Your task to perform on an android device: Go to Yahoo.com Image 0: 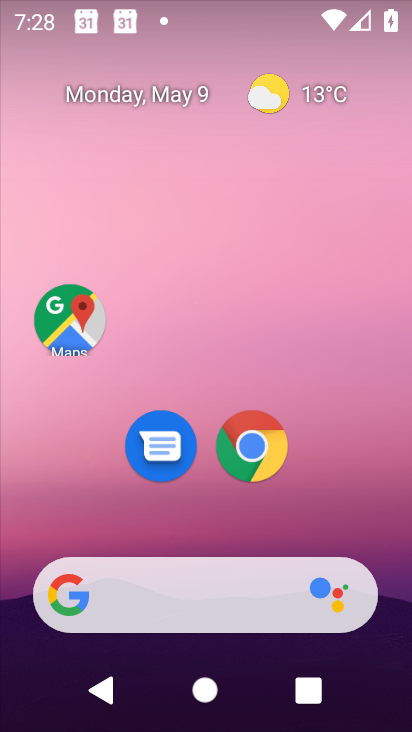
Step 0: click (232, 430)
Your task to perform on an android device: Go to Yahoo.com Image 1: 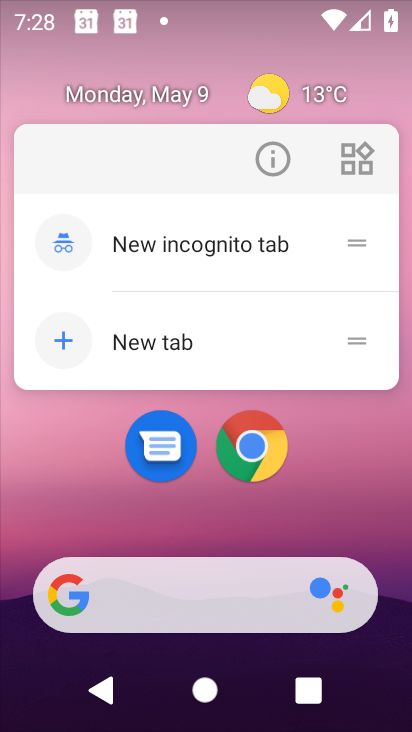
Step 1: click (266, 443)
Your task to perform on an android device: Go to Yahoo.com Image 2: 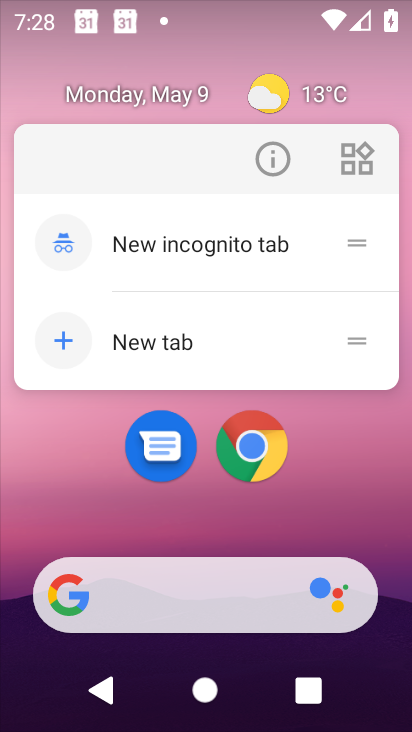
Step 2: click (265, 448)
Your task to perform on an android device: Go to Yahoo.com Image 3: 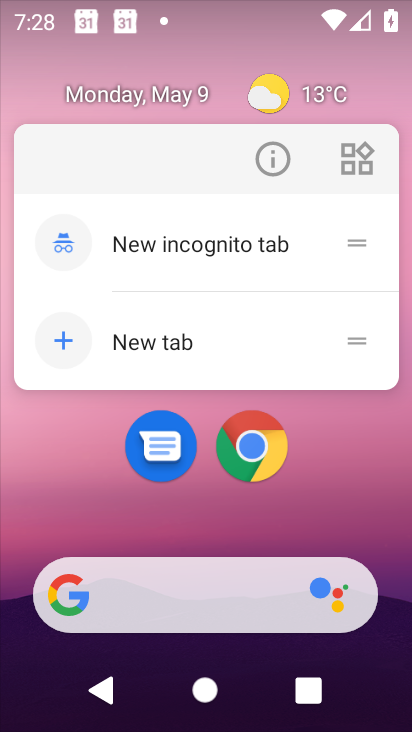
Step 3: click (257, 460)
Your task to perform on an android device: Go to Yahoo.com Image 4: 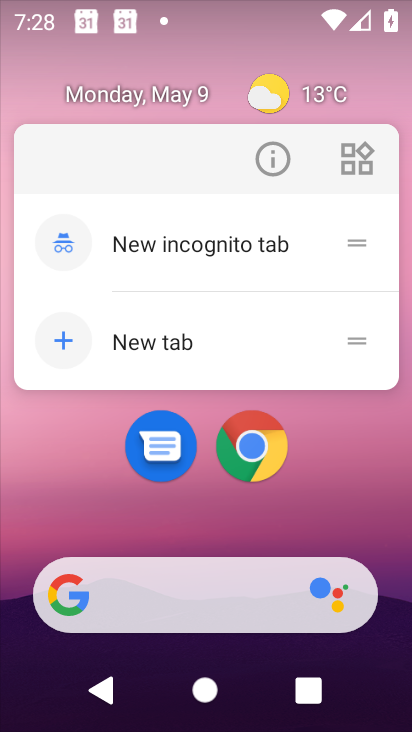
Step 4: click (256, 459)
Your task to perform on an android device: Go to Yahoo.com Image 5: 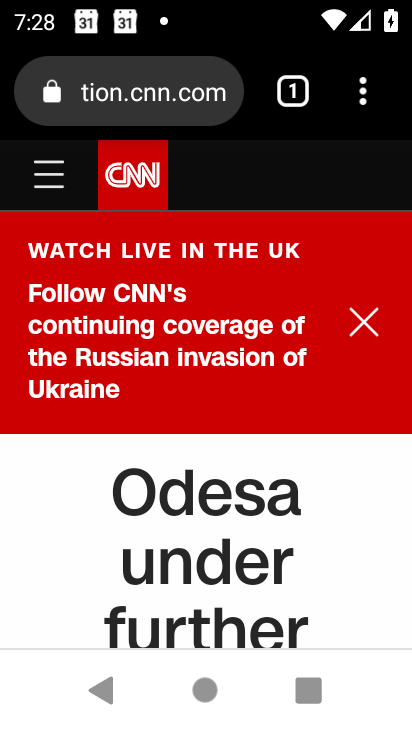
Step 5: click (140, 103)
Your task to perform on an android device: Go to Yahoo.com Image 6: 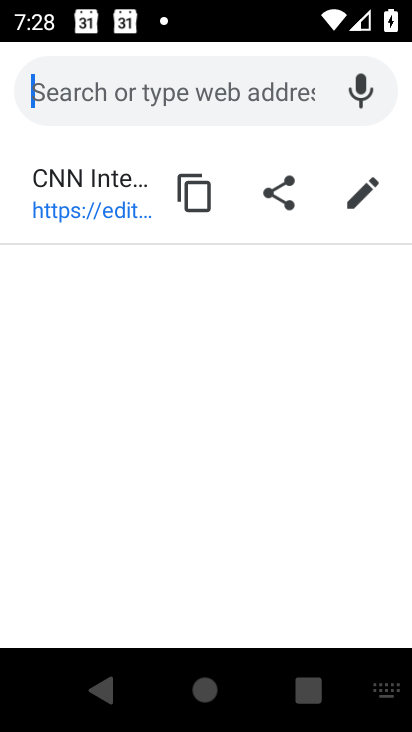
Step 6: type "yahoo.com"
Your task to perform on an android device: Go to Yahoo.com Image 7: 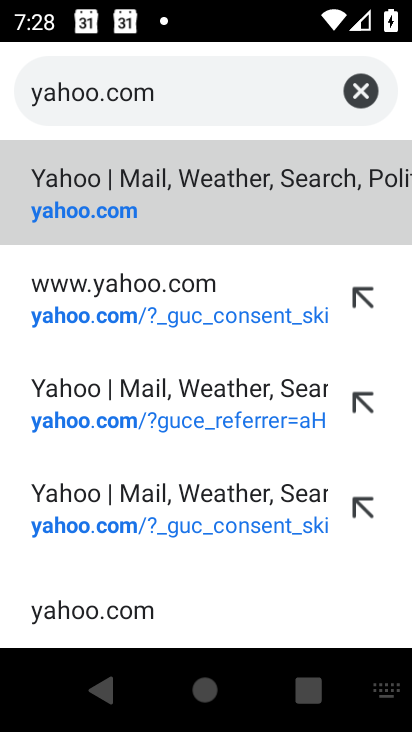
Step 7: click (105, 204)
Your task to perform on an android device: Go to Yahoo.com Image 8: 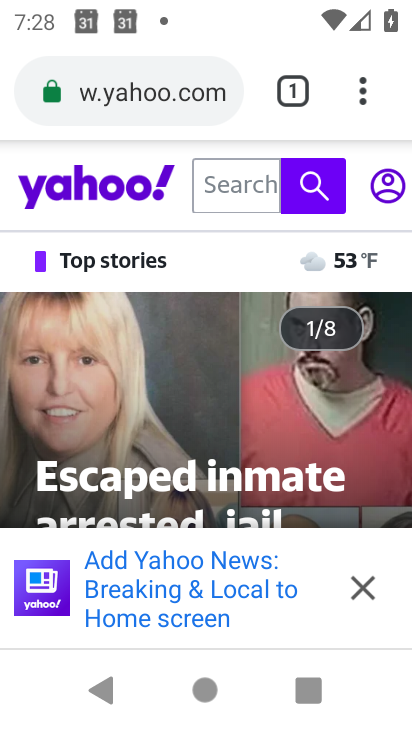
Step 8: task complete